Your task to perform on an android device: allow notifications from all sites in the chrome app Image 0: 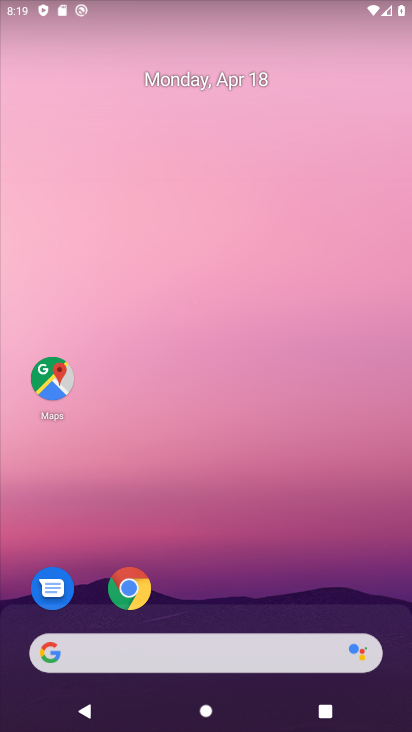
Step 0: drag from (277, 3) to (240, 5)
Your task to perform on an android device: allow notifications from all sites in the chrome app Image 1: 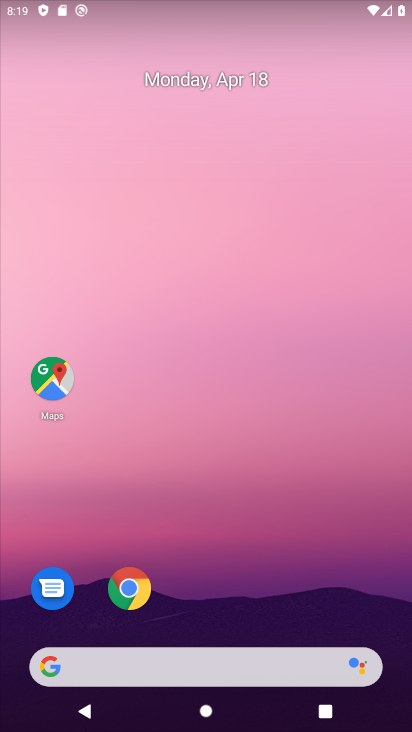
Step 1: drag from (306, 547) to (332, 3)
Your task to perform on an android device: allow notifications from all sites in the chrome app Image 2: 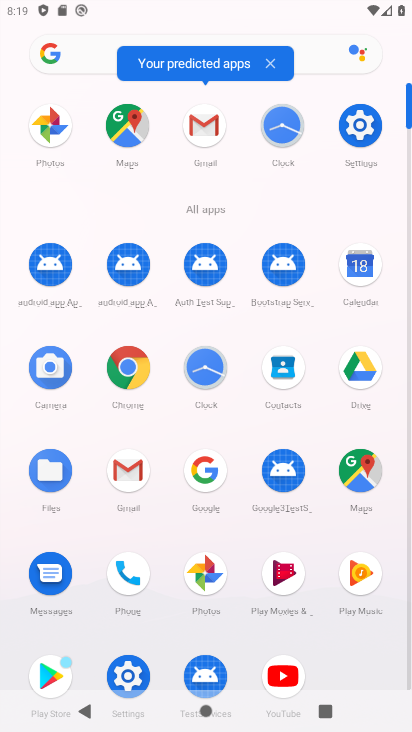
Step 2: click (134, 375)
Your task to perform on an android device: allow notifications from all sites in the chrome app Image 3: 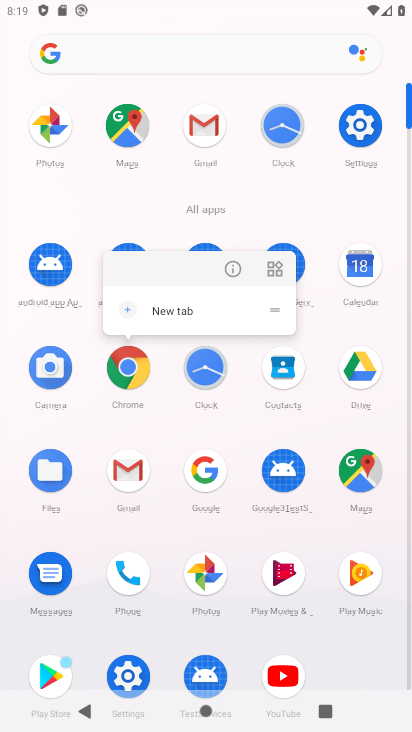
Step 3: click (123, 374)
Your task to perform on an android device: allow notifications from all sites in the chrome app Image 4: 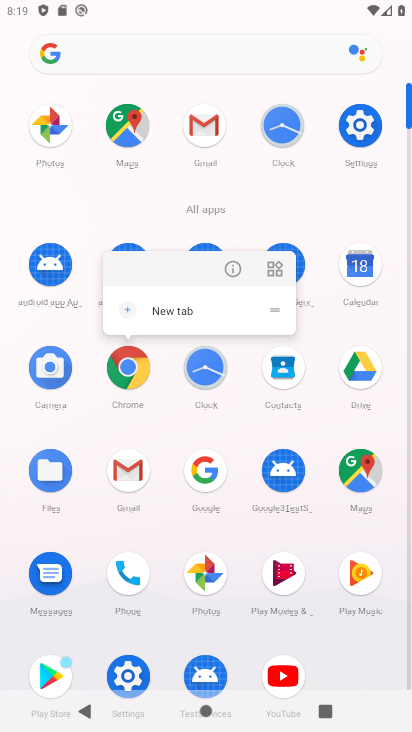
Step 4: click (123, 373)
Your task to perform on an android device: allow notifications from all sites in the chrome app Image 5: 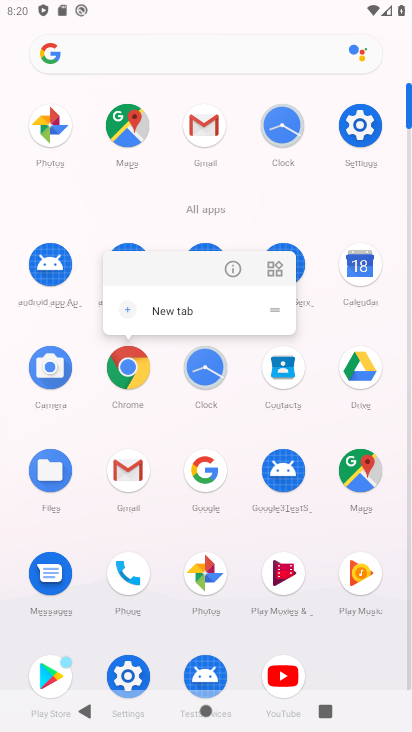
Step 5: click (123, 373)
Your task to perform on an android device: allow notifications from all sites in the chrome app Image 6: 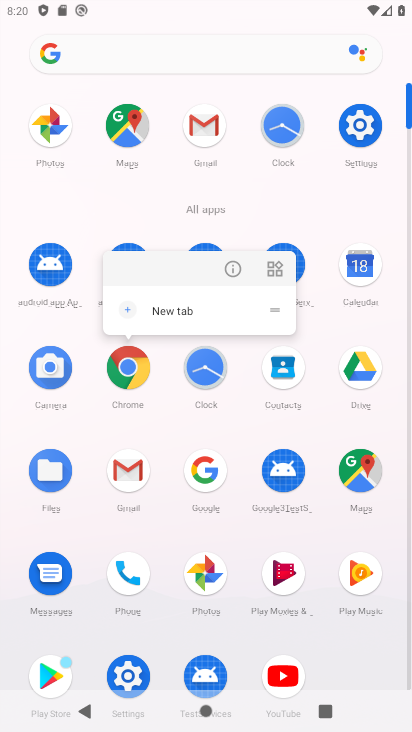
Step 6: click (123, 370)
Your task to perform on an android device: allow notifications from all sites in the chrome app Image 7: 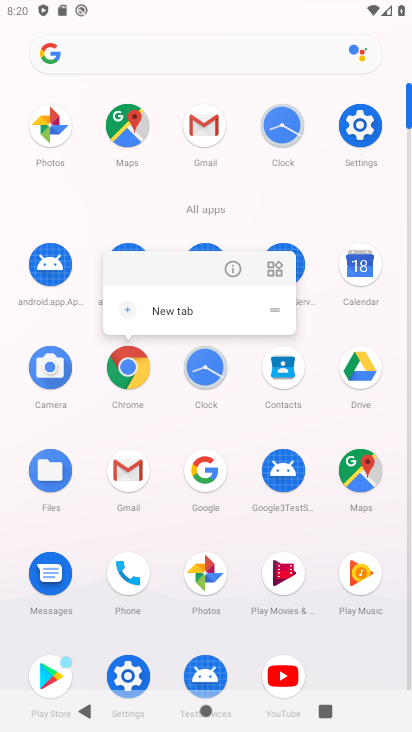
Step 7: click (123, 370)
Your task to perform on an android device: allow notifications from all sites in the chrome app Image 8: 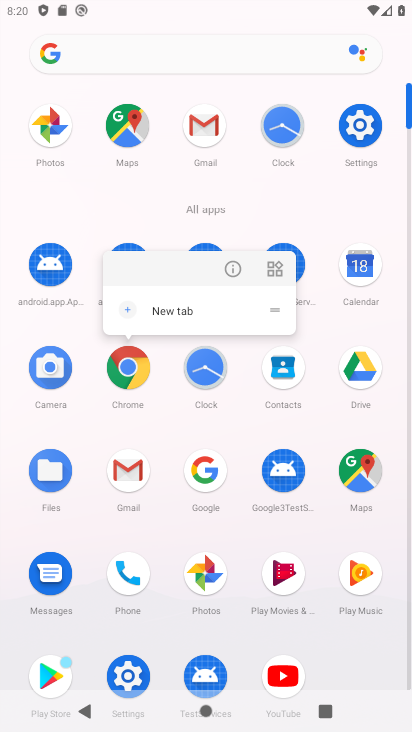
Step 8: click (120, 311)
Your task to perform on an android device: allow notifications from all sites in the chrome app Image 9: 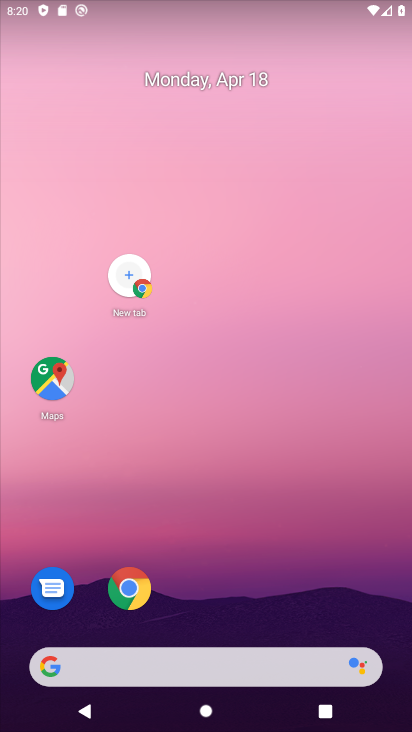
Step 9: click (125, 584)
Your task to perform on an android device: allow notifications from all sites in the chrome app Image 10: 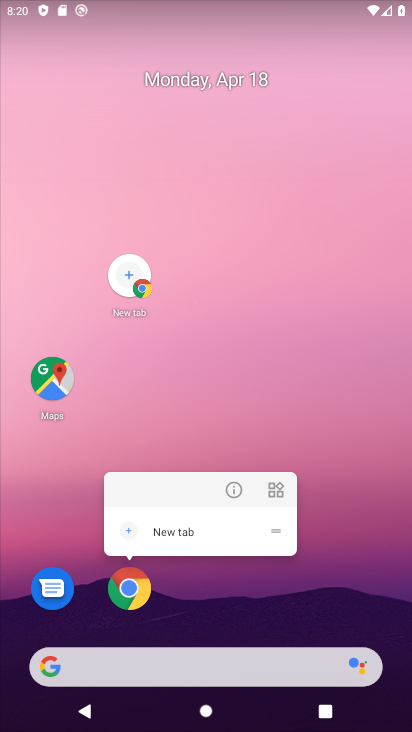
Step 10: click (144, 572)
Your task to perform on an android device: allow notifications from all sites in the chrome app Image 11: 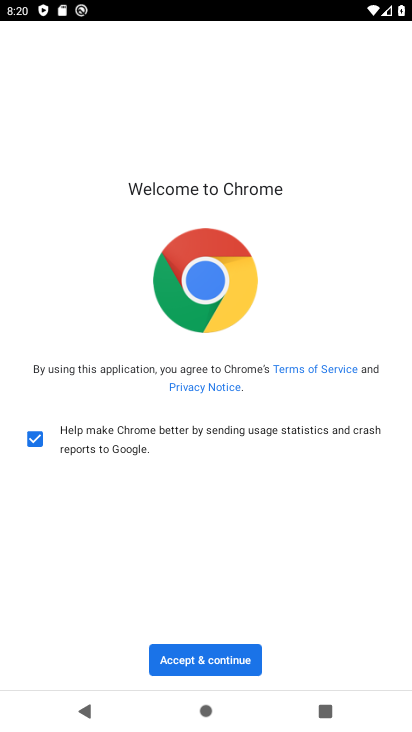
Step 11: click (202, 658)
Your task to perform on an android device: allow notifications from all sites in the chrome app Image 12: 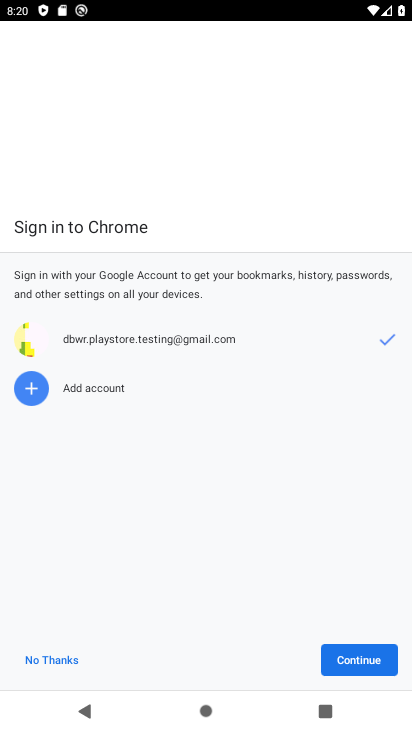
Step 12: click (49, 656)
Your task to perform on an android device: allow notifications from all sites in the chrome app Image 13: 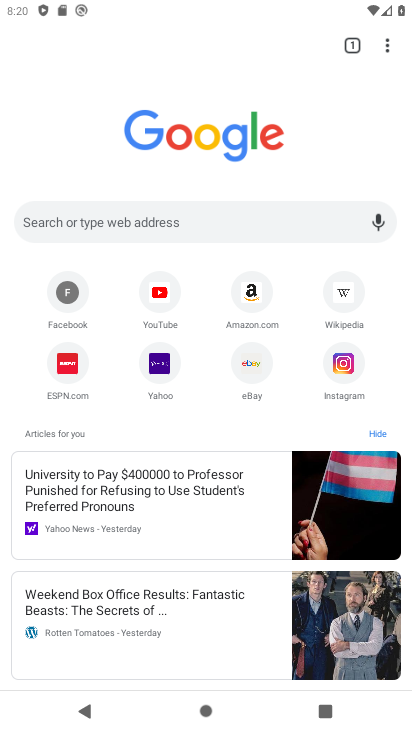
Step 13: click (403, 48)
Your task to perform on an android device: allow notifications from all sites in the chrome app Image 14: 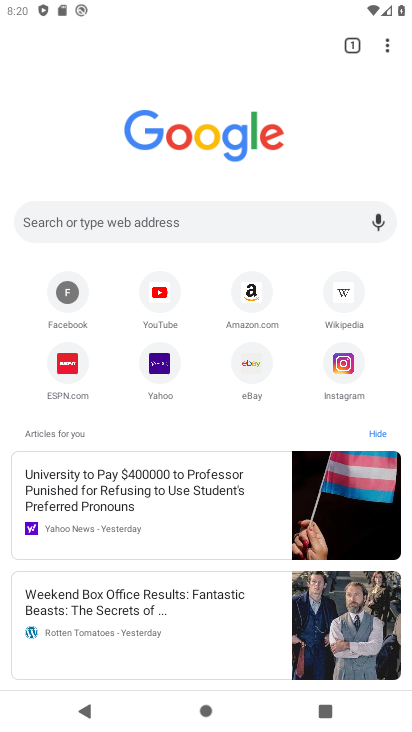
Step 14: drag from (387, 45) to (225, 387)
Your task to perform on an android device: allow notifications from all sites in the chrome app Image 15: 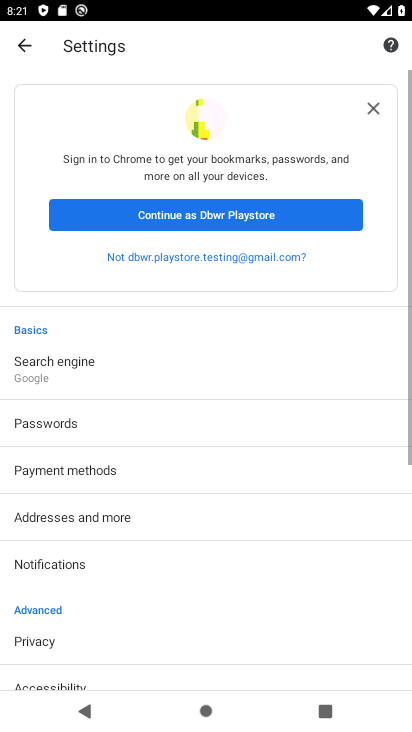
Step 15: drag from (158, 629) to (174, 376)
Your task to perform on an android device: allow notifications from all sites in the chrome app Image 16: 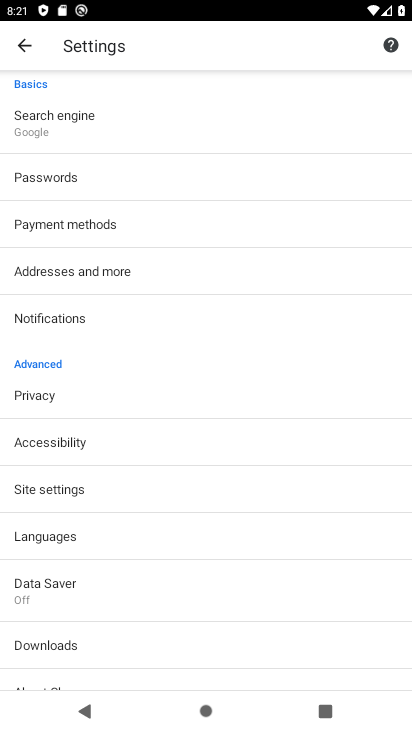
Step 16: drag from (200, 192) to (229, 501)
Your task to perform on an android device: allow notifications from all sites in the chrome app Image 17: 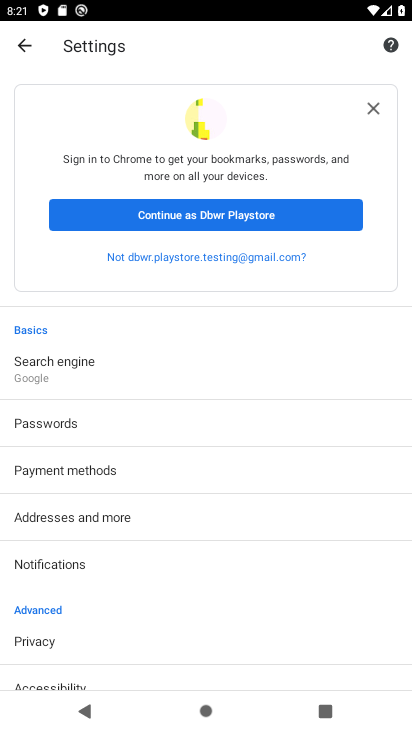
Step 17: drag from (71, 670) to (90, 386)
Your task to perform on an android device: allow notifications from all sites in the chrome app Image 18: 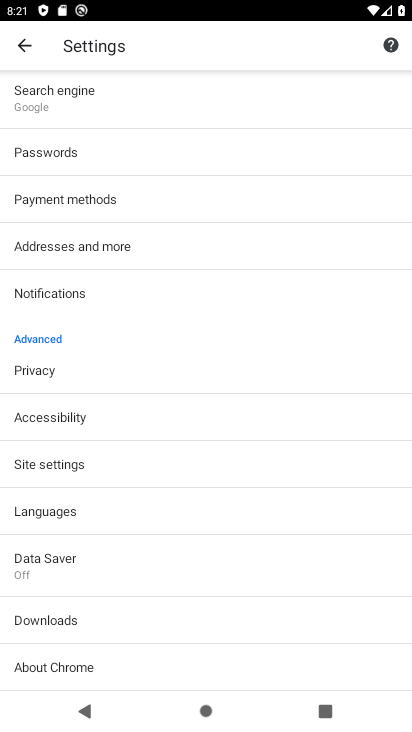
Step 18: click (43, 449)
Your task to perform on an android device: allow notifications from all sites in the chrome app Image 19: 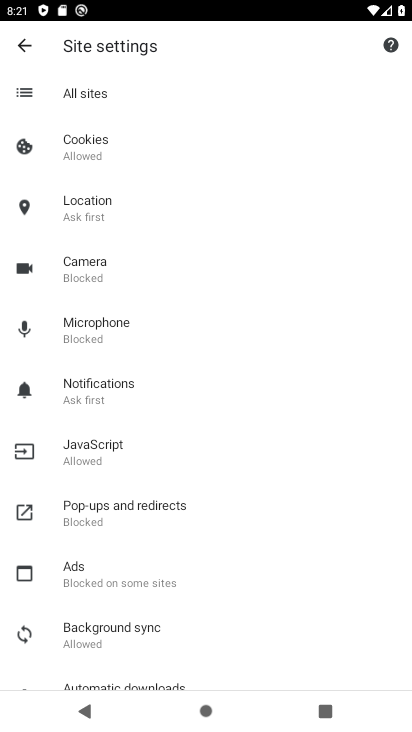
Step 19: click (96, 388)
Your task to perform on an android device: allow notifications from all sites in the chrome app Image 20: 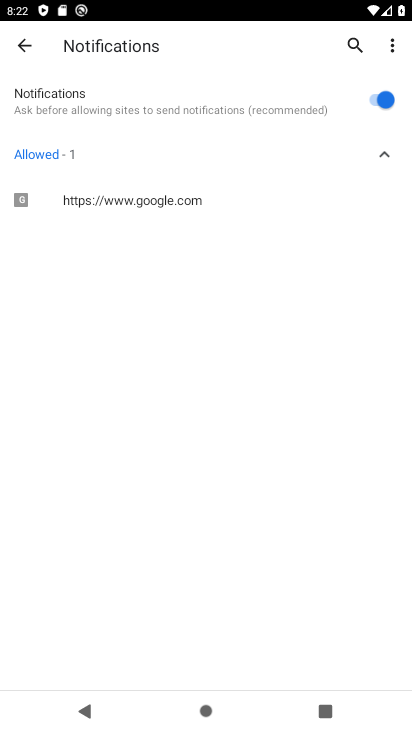
Step 20: task complete